Your task to perform on an android device: Go to calendar. Show me events next week Image 0: 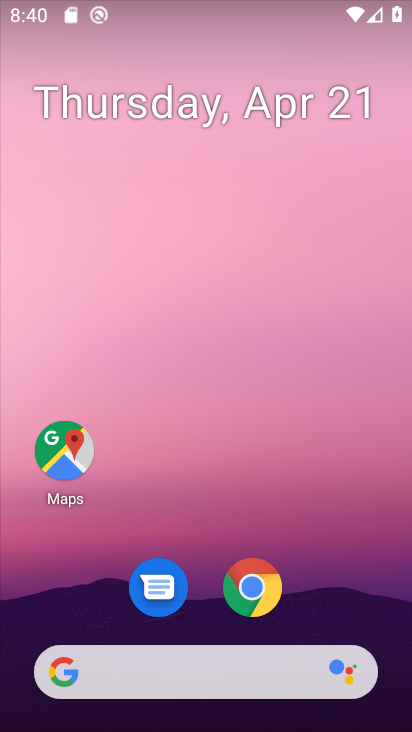
Step 0: click (315, 265)
Your task to perform on an android device: Go to calendar. Show me events next week Image 1: 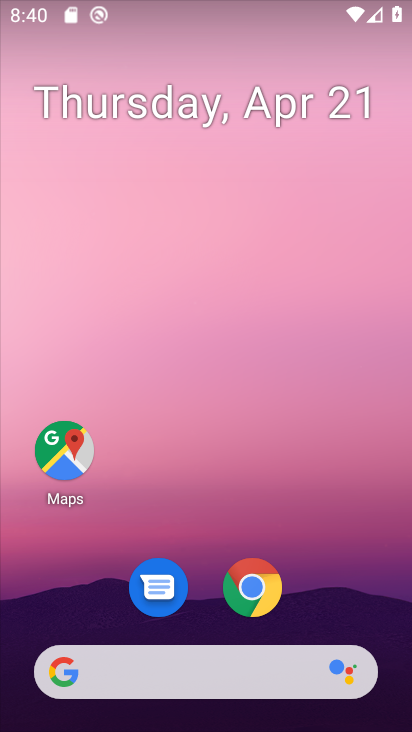
Step 1: drag from (367, 602) to (346, 356)
Your task to perform on an android device: Go to calendar. Show me events next week Image 2: 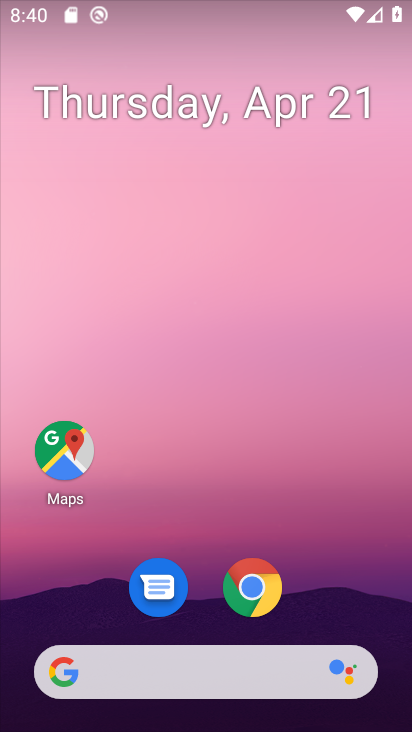
Step 2: drag from (342, 491) to (328, 350)
Your task to perform on an android device: Go to calendar. Show me events next week Image 3: 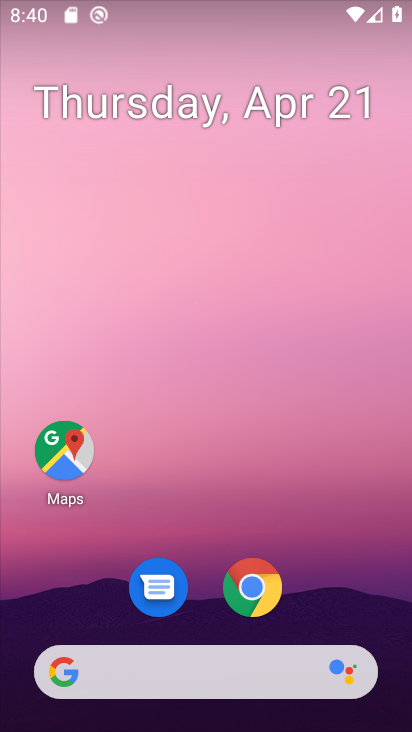
Step 3: drag from (383, 620) to (360, 305)
Your task to perform on an android device: Go to calendar. Show me events next week Image 4: 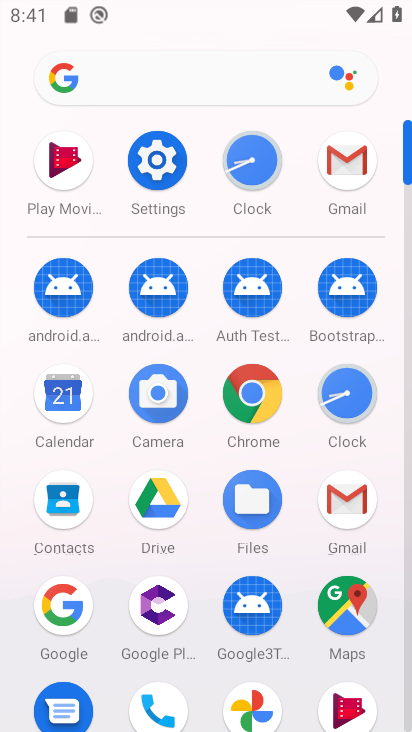
Step 4: click (58, 405)
Your task to perform on an android device: Go to calendar. Show me events next week Image 5: 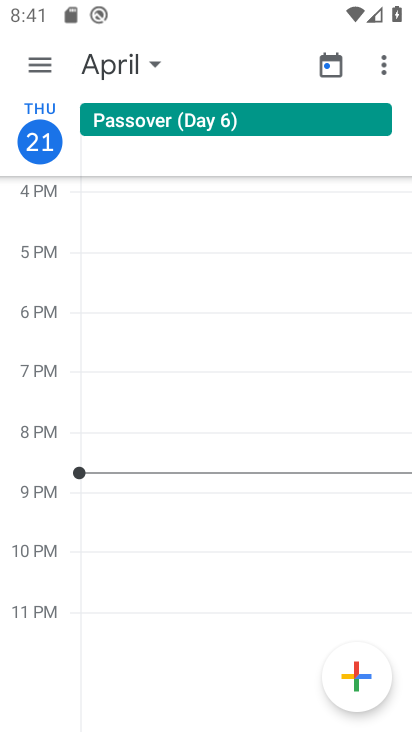
Step 5: click (154, 57)
Your task to perform on an android device: Go to calendar. Show me events next week Image 6: 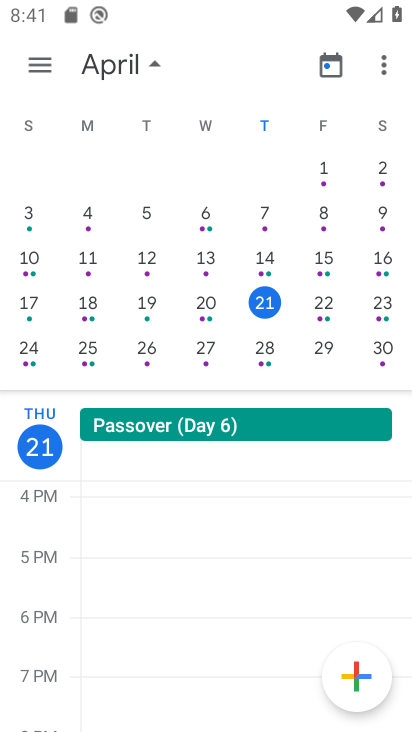
Step 6: click (31, 64)
Your task to perform on an android device: Go to calendar. Show me events next week Image 7: 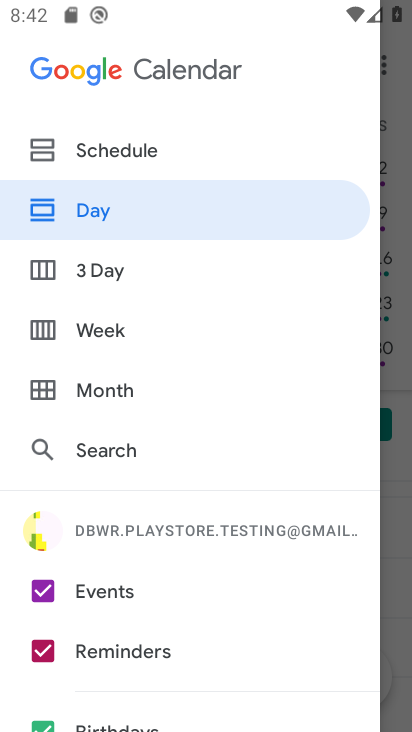
Step 7: click (97, 327)
Your task to perform on an android device: Go to calendar. Show me events next week Image 8: 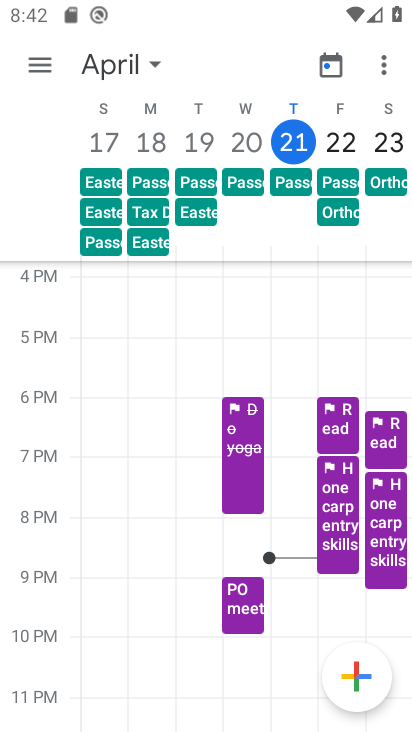
Step 8: task complete